Your task to perform on an android device: search for starred emails in the gmail app Image 0: 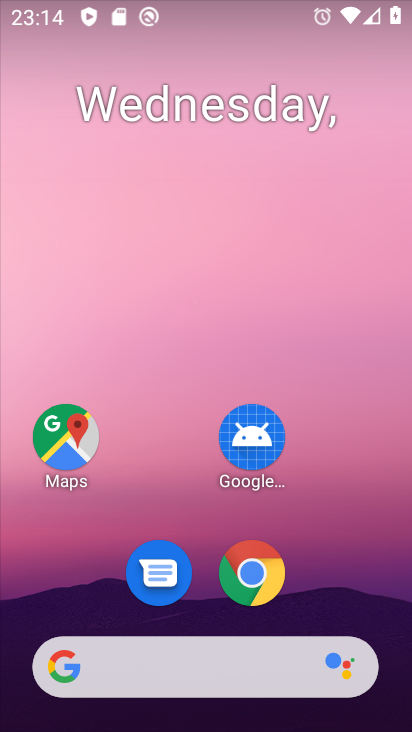
Step 0: drag from (168, 451) to (242, 4)
Your task to perform on an android device: search for starred emails in the gmail app Image 1: 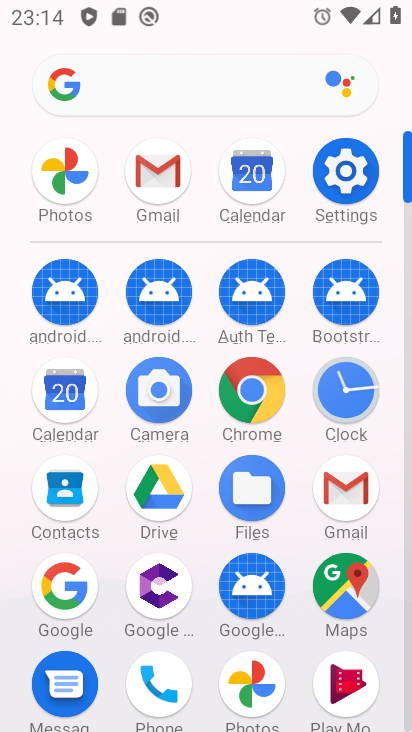
Step 1: click (160, 177)
Your task to perform on an android device: search for starred emails in the gmail app Image 2: 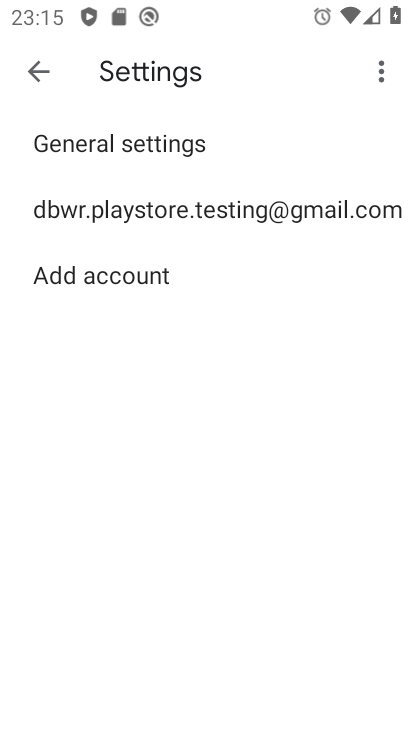
Step 2: press back button
Your task to perform on an android device: search for starred emails in the gmail app Image 3: 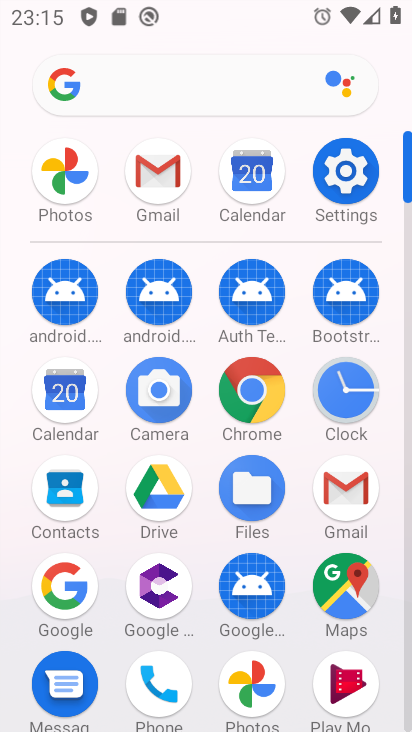
Step 3: click (158, 170)
Your task to perform on an android device: search for starred emails in the gmail app Image 4: 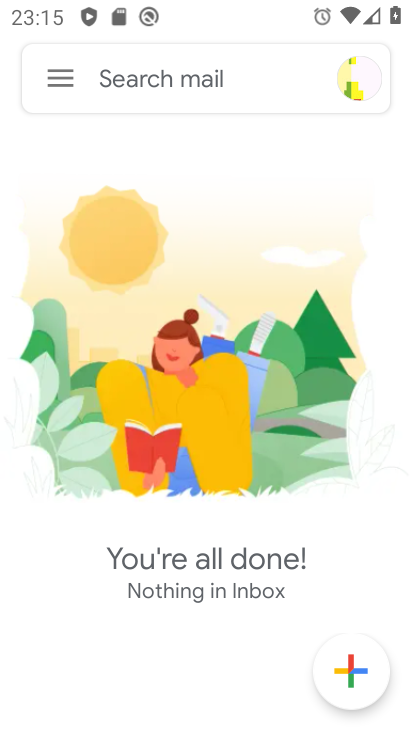
Step 4: click (176, 88)
Your task to perform on an android device: search for starred emails in the gmail app Image 5: 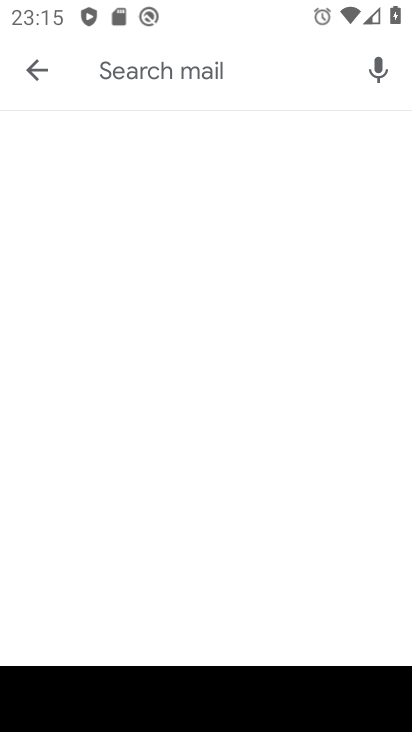
Step 5: press back button
Your task to perform on an android device: search for starred emails in the gmail app Image 6: 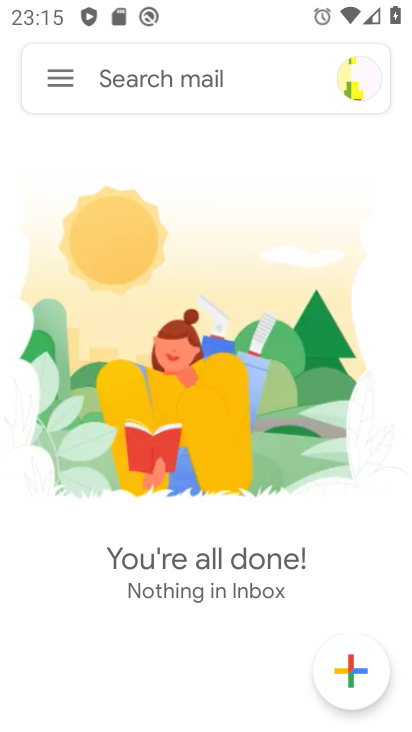
Step 6: click (65, 83)
Your task to perform on an android device: search for starred emails in the gmail app Image 7: 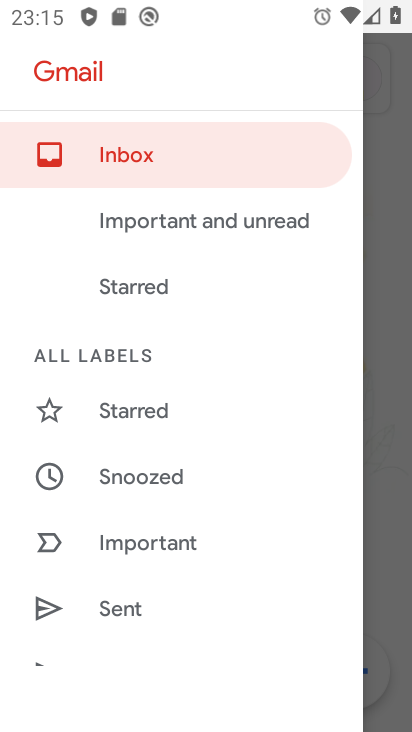
Step 7: click (156, 411)
Your task to perform on an android device: search for starred emails in the gmail app Image 8: 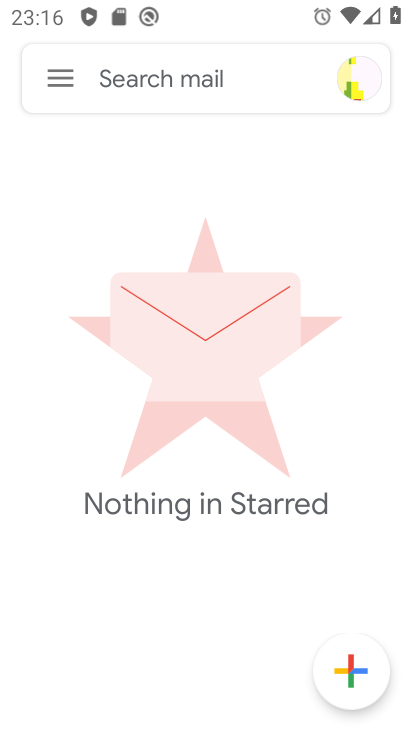
Step 8: task complete